Your task to perform on an android device: read, delete, or share a saved page in the chrome app Image 0: 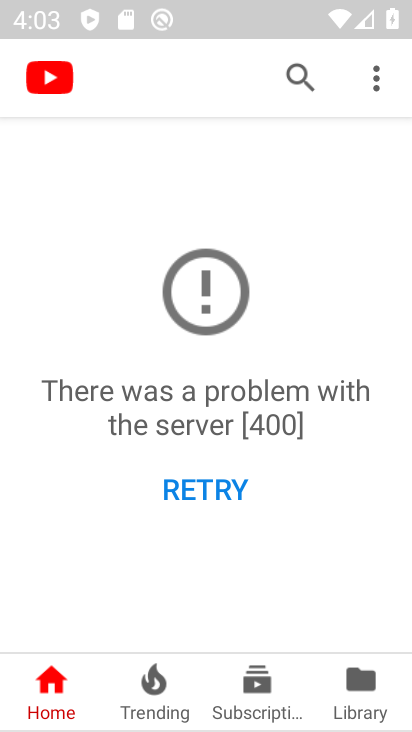
Step 0: press back button
Your task to perform on an android device: read, delete, or share a saved page in the chrome app Image 1: 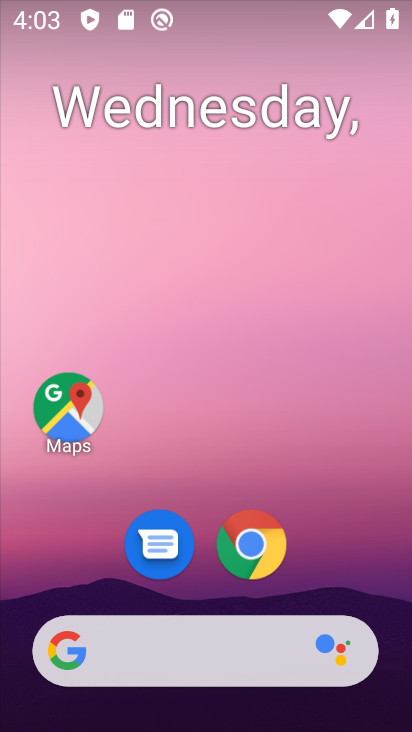
Step 1: drag from (382, 540) to (347, 315)
Your task to perform on an android device: read, delete, or share a saved page in the chrome app Image 2: 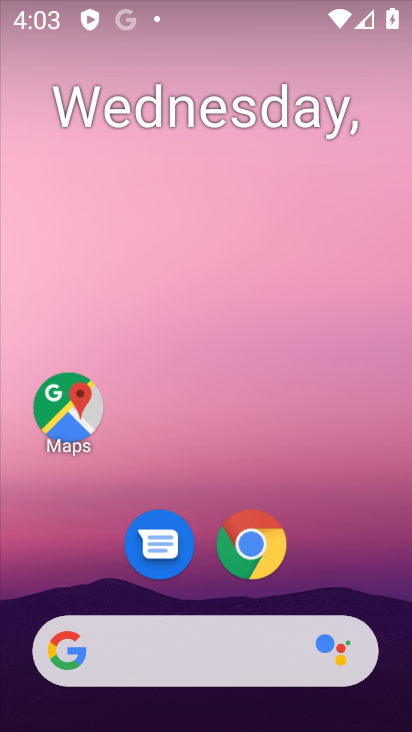
Step 2: drag from (330, 545) to (358, 193)
Your task to perform on an android device: read, delete, or share a saved page in the chrome app Image 3: 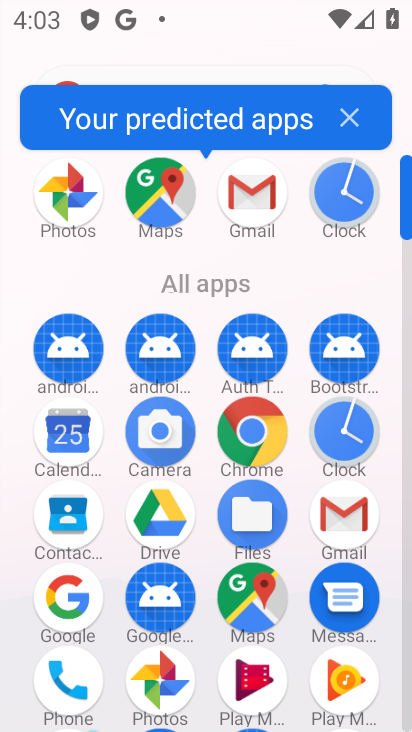
Step 3: click (246, 442)
Your task to perform on an android device: read, delete, or share a saved page in the chrome app Image 4: 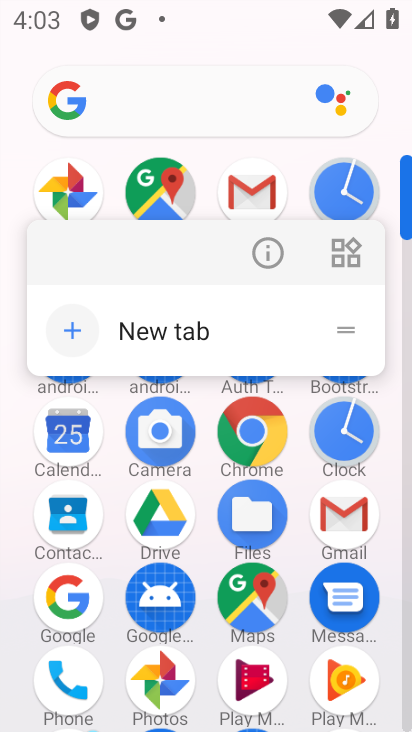
Step 4: click (249, 454)
Your task to perform on an android device: read, delete, or share a saved page in the chrome app Image 5: 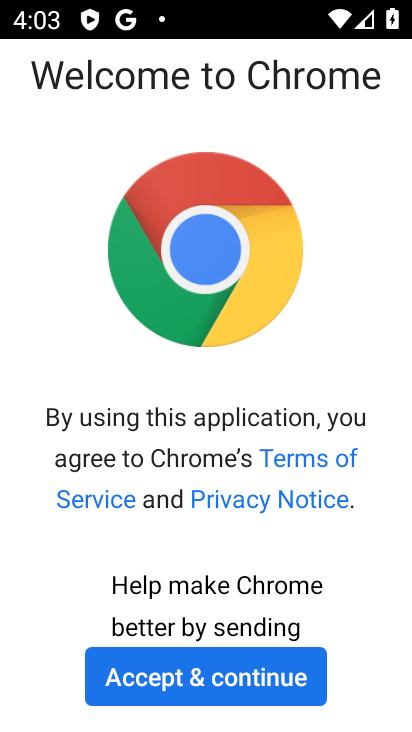
Step 5: click (170, 693)
Your task to perform on an android device: read, delete, or share a saved page in the chrome app Image 6: 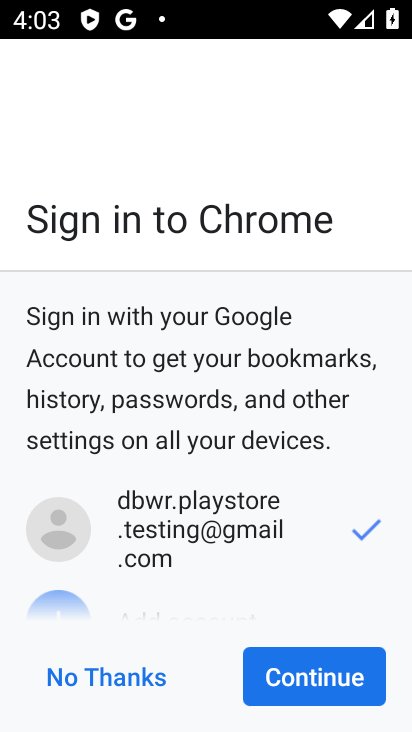
Step 6: click (321, 672)
Your task to perform on an android device: read, delete, or share a saved page in the chrome app Image 7: 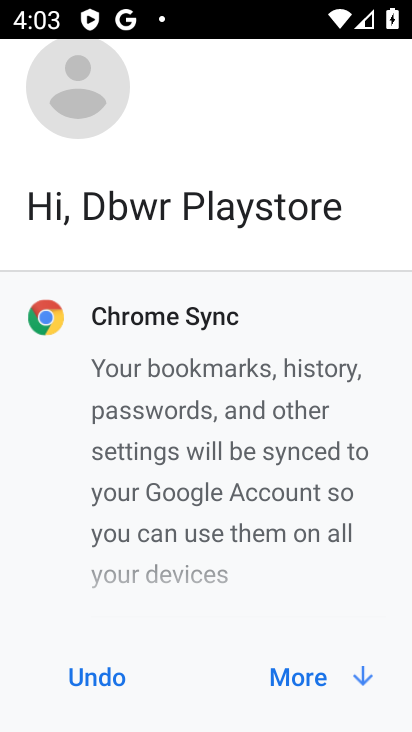
Step 7: click (315, 687)
Your task to perform on an android device: read, delete, or share a saved page in the chrome app Image 8: 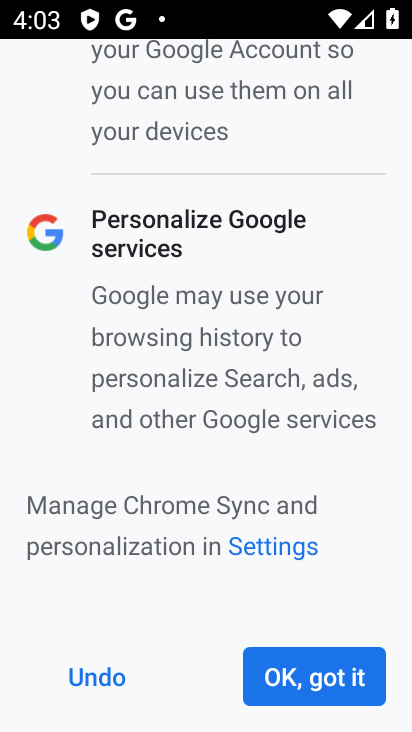
Step 8: click (315, 687)
Your task to perform on an android device: read, delete, or share a saved page in the chrome app Image 9: 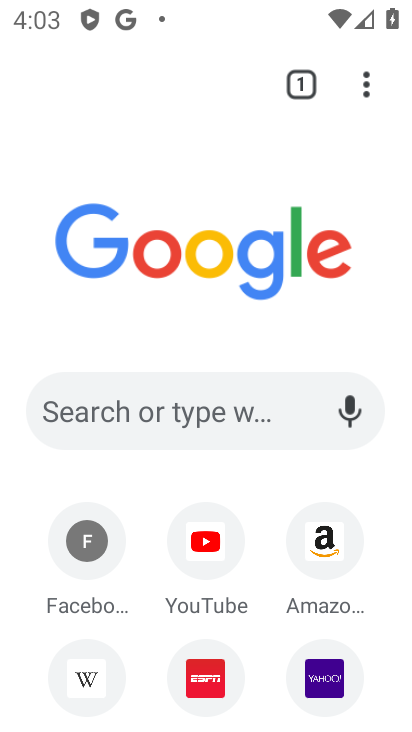
Step 9: click (364, 96)
Your task to perform on an android device: read, delete, or share a saved page in the chrome app Image 10: 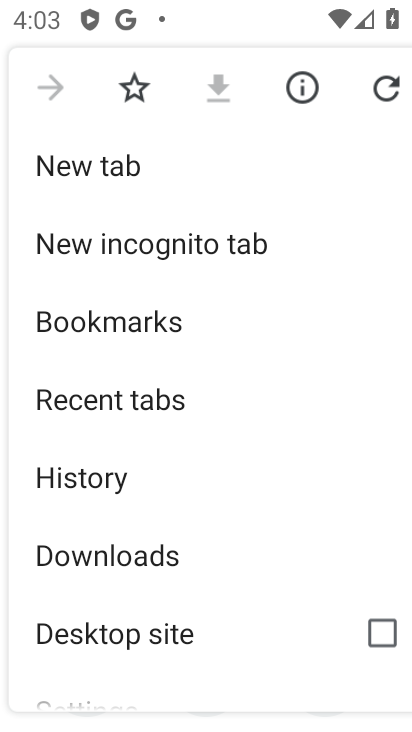
Step 10: click (221, 555)
Your task to perform on an android device: read, delete, or share a saved page in the chrome app Image 11: 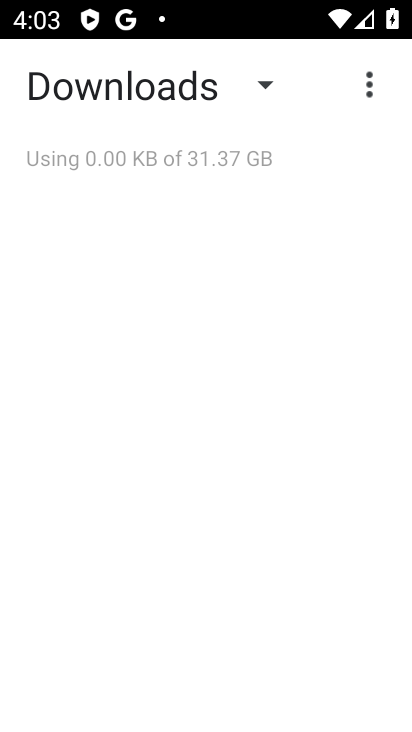
Step 11: click (269, 95)
Your task to perform on an android device: read, delete, or share a saved page in the chrome app Image 12: 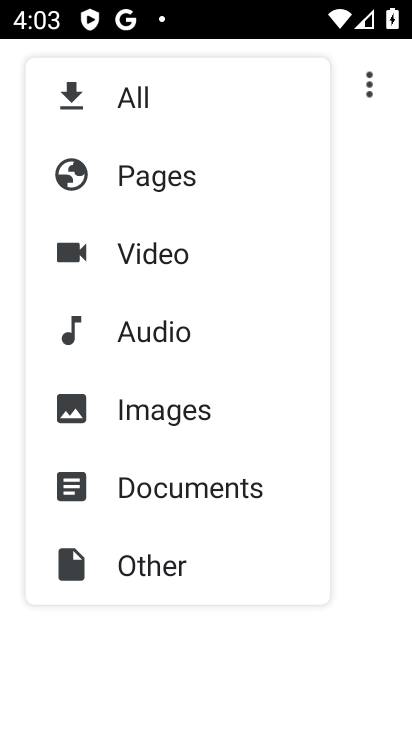
Step 12: click (183, 198)
Your task to perform on an android device: read, delete, or share a saved page in the chrome app Image 13: 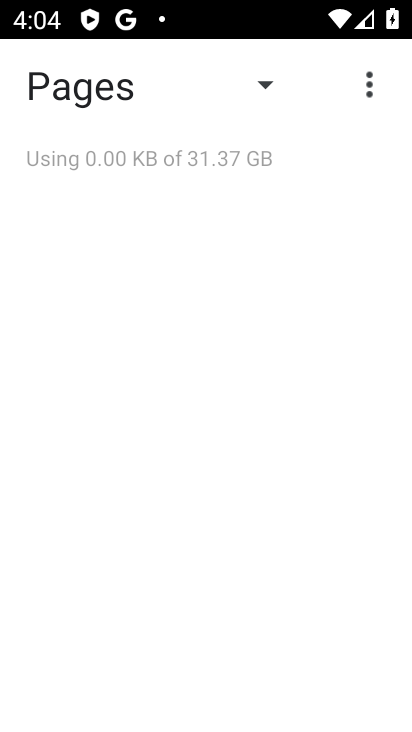
Step 13: task complete